Your task to perform on an android device: Go to sound settings Image 0: 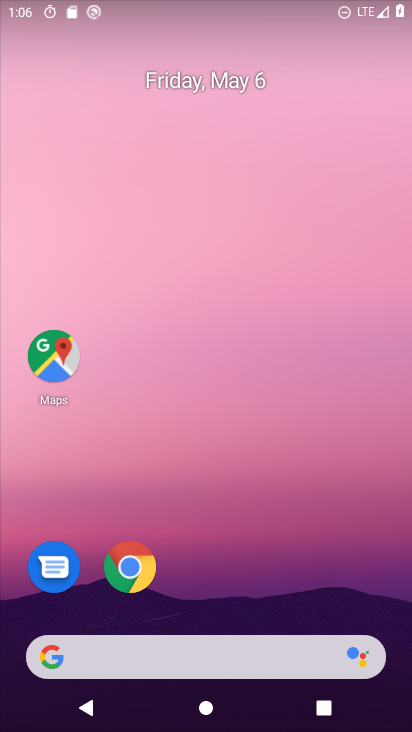
Step 0: drag from (288, 584) to (298, 51)
Your task to perform on an android device: Go to sound settings Image 1: 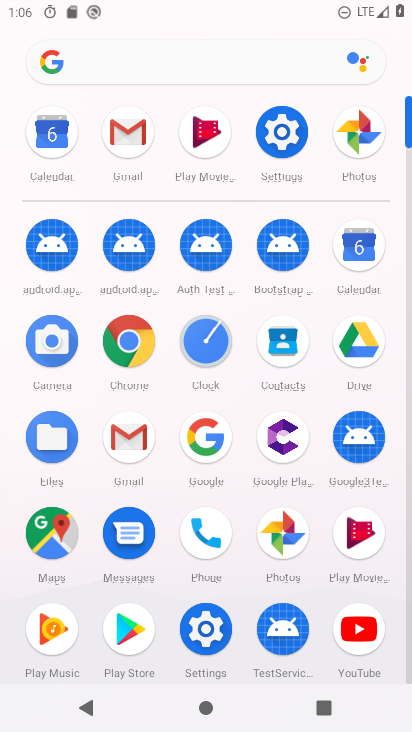
Step 1: click (285, 142)
Your task to perform on an android device: Go to sound settings Image 2: 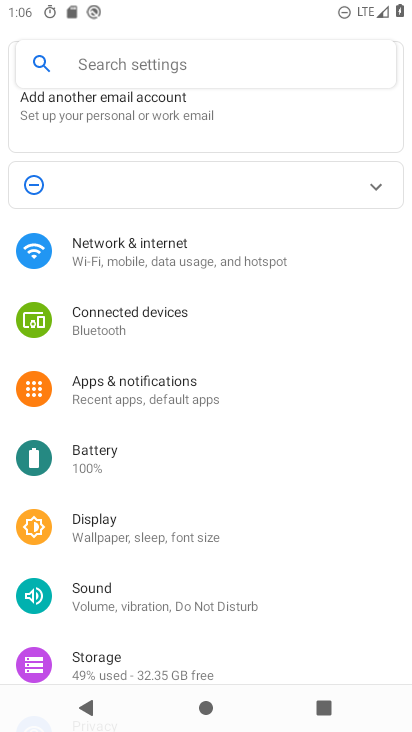
Step 2: click (114, 598)
Your task to perform on an android device: Go to sound settings Image 3: 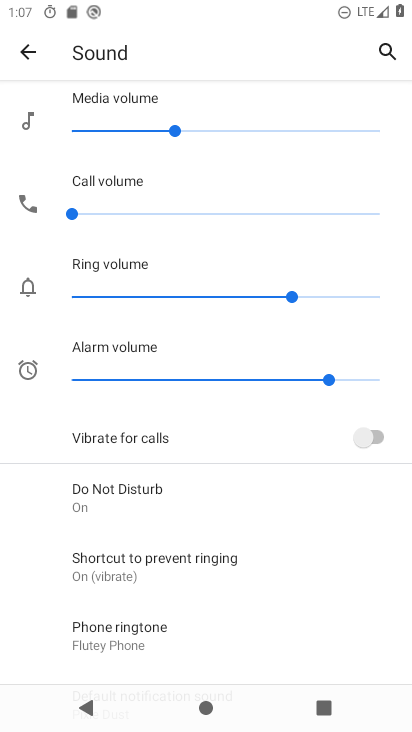
Step 3: task complete